Your task to perform on an android device: star an email in the gmail app Image 0: 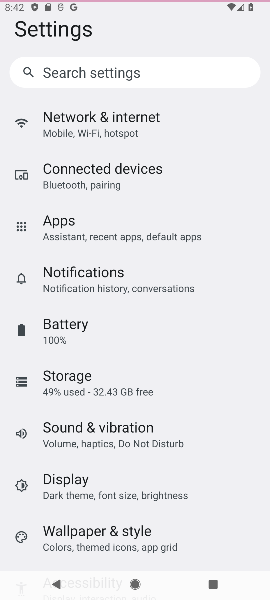
Step 0: press home button
Your task to perform on an android device: star an email in the gmail app Image 1: 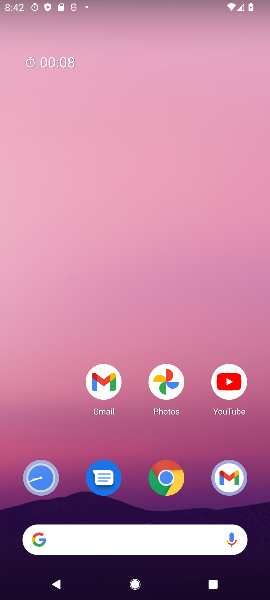
Step 1: click (94, 393)
Your task to perform on an android device: star an email in the gmail app Image 2: 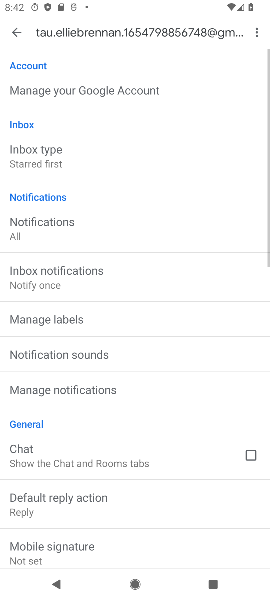
Step 2: click (13, 32)
Your task to perform on an android device: star an email in the gmail app Image 3: 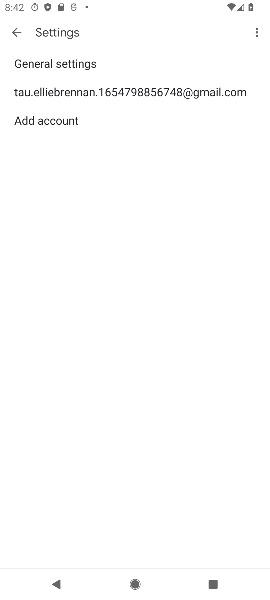
Step 3: click (13, 32)
Your task to perform on an android device: star an email in the gmail app Image 4: 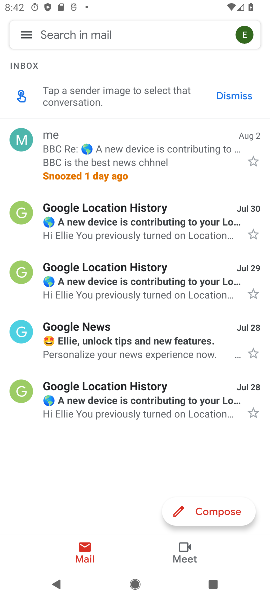
Step 4: click (252, 236)
Your task to perform on an android device: star an email in the gmail app Image 5: 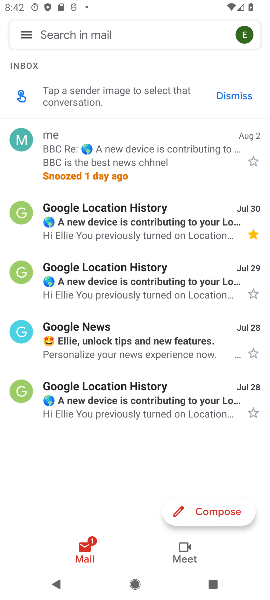
Step 5: task complete